Your task to perform on an android device: turn off translation in the chrome app Image 0: 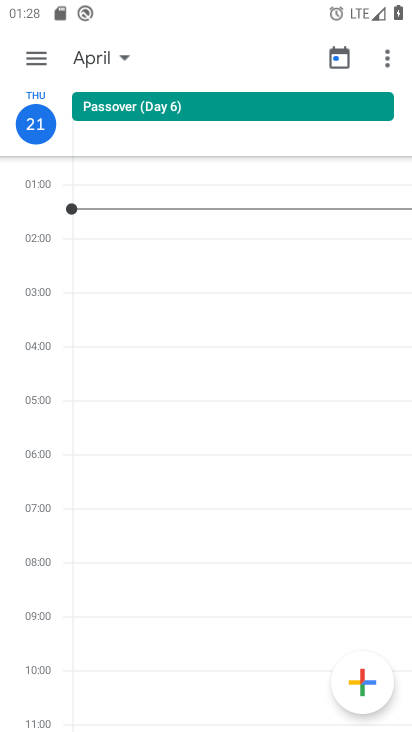
Step 0: press home button
Your task to perform on an android device: turn off translation in the chrome app Image 1: 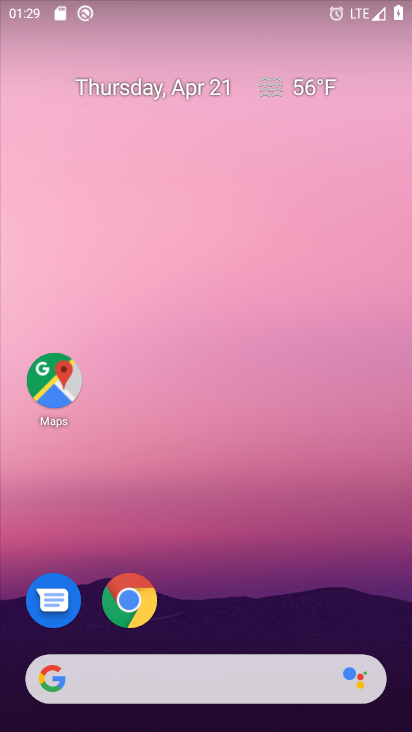
Step 1: click (130, 609)
Your task to perform on an android device: turn off translation in the chrome app Image 2: 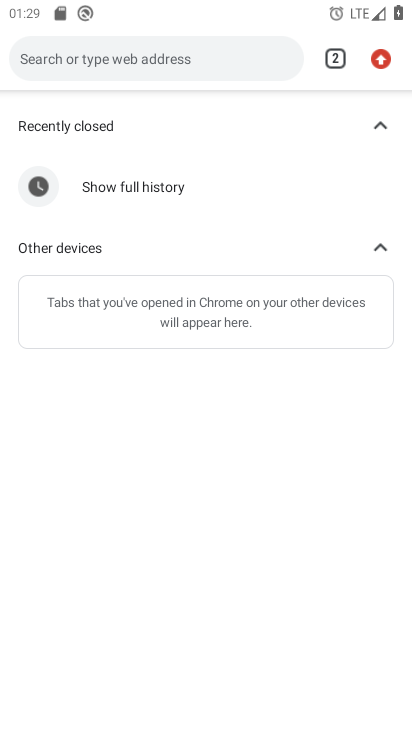
Step 2: click (379, 54)
Your task to perform on an android device: turn off translation in the chrome app Image 3: 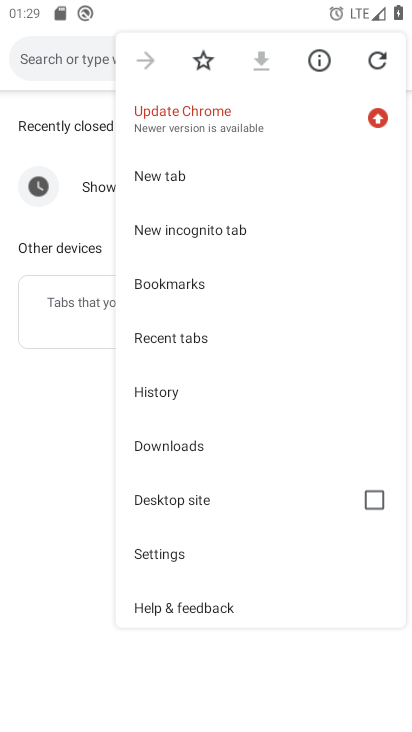
Step 3: click (210, 552)
Your task to perform on an android device: turn off translation in the chrome app Image 4: 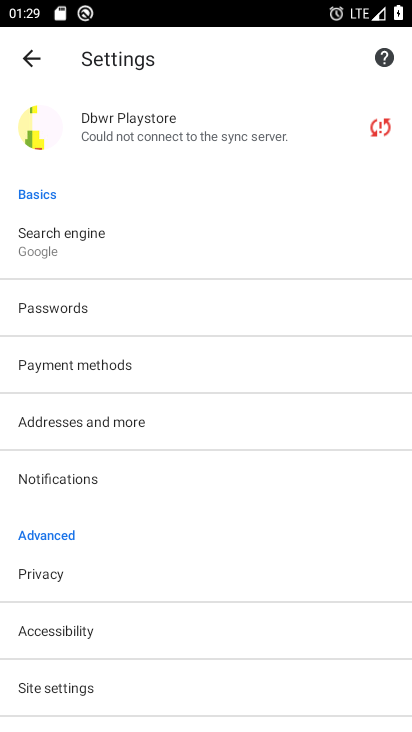
Step 4: drag from (210, 552) to (193, 289)
Your task to perform on an android device: turn off translation in the chrome app Image 5: 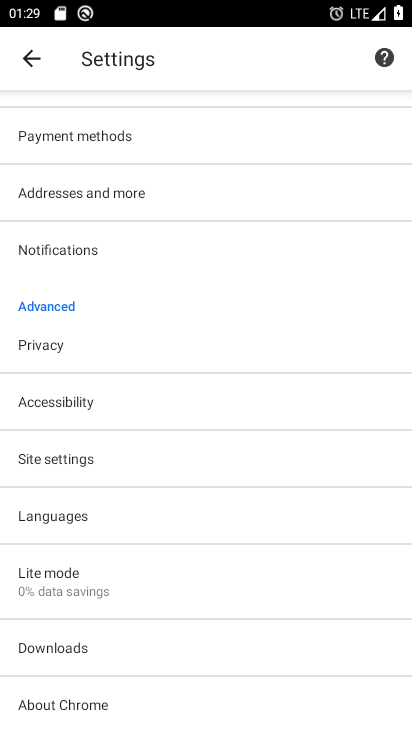
Step 5: click (213, 495)
Your task to perform on an android device: turn off translation in the chrome app Image 6: 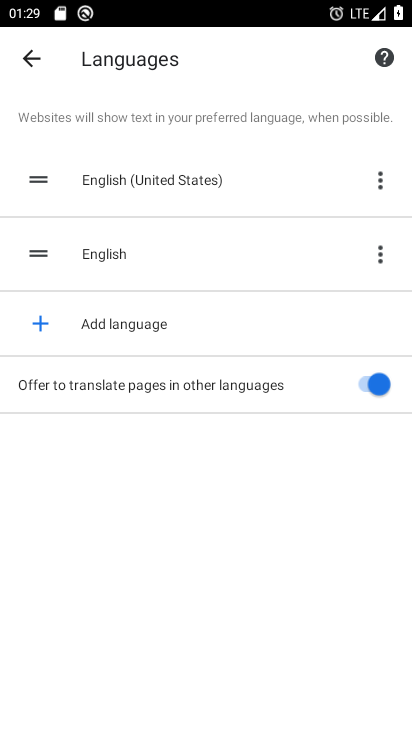
Step 6: click (368, 379)
Your task to perform on an android device: turn off translation in the chrome app Image 7: 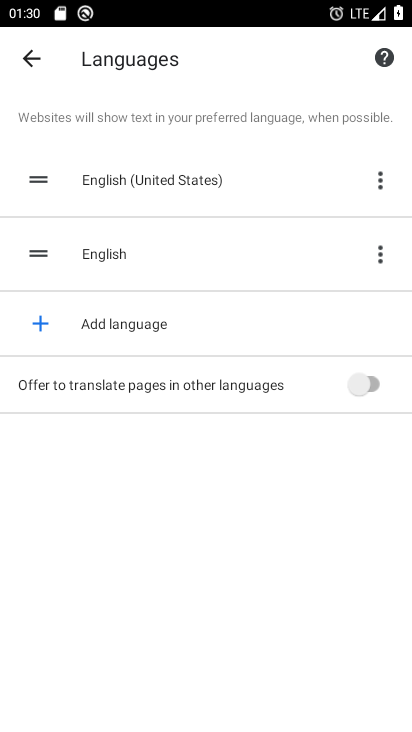
Step 7: task complete